Your task to perform on an android device: Open accessibility settings Image 0: 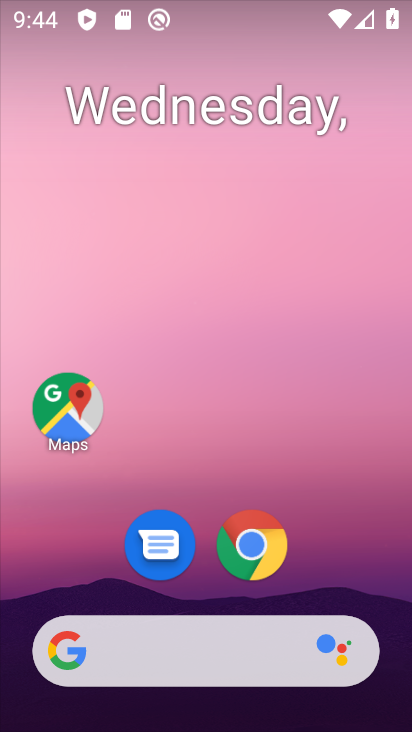
Step 0: drag from (328, 515) to (242, 79)
Your task to perform on an android device: Open accessibility settings Image 1: 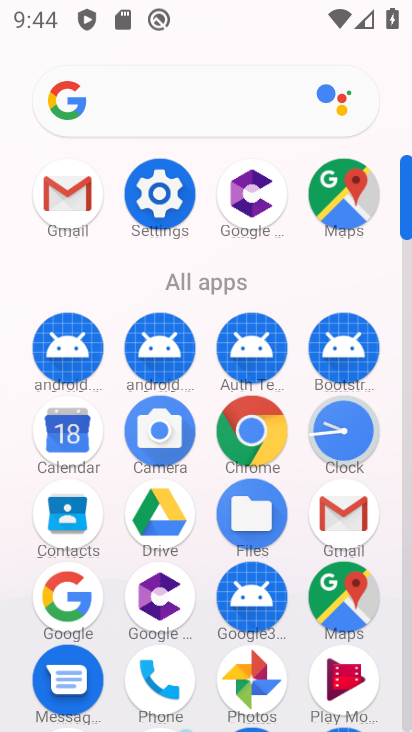
Step 1: click (162, 200)
Your task to perform on an android device: Open accessibility settings Image 2: 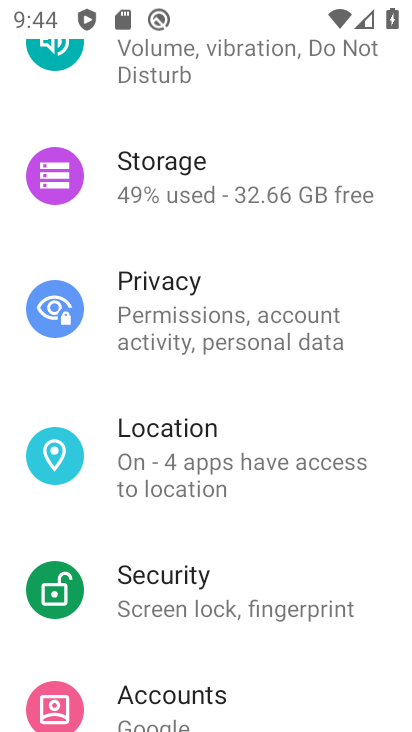
Step 2: drag from (228, 573) to (220, 121)
Your task to perform on an android device: Open accessibility settings Image 3: 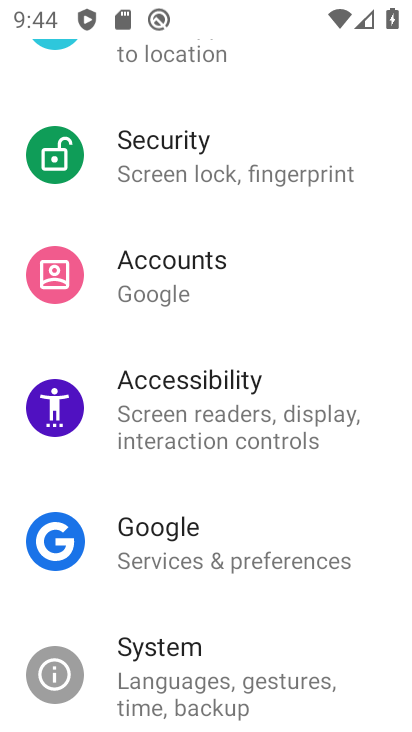
Step 3: click (237, 407)
Your task to perform on an android device: Open accessibility settings Image 4: 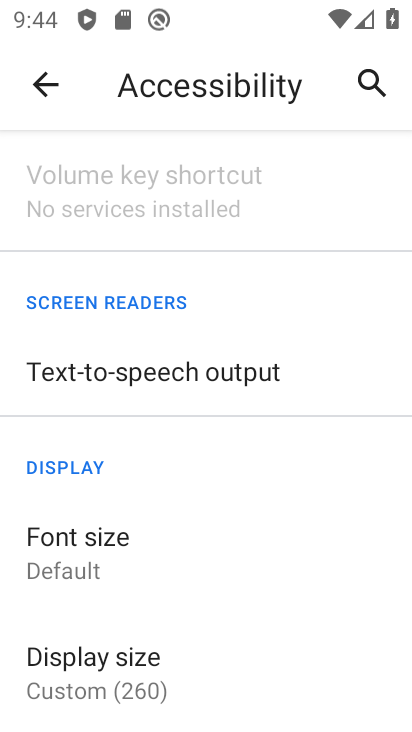
Step 4: task complete